Your task to perform on an android device: set an alarm Image 0: 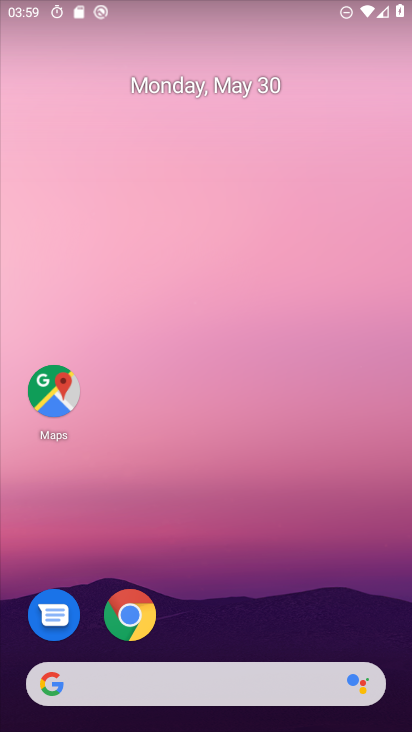
Step 0: drag from (247, 597) to (221, 144)
Your task to perform on an android device: set an alarm Image 1: 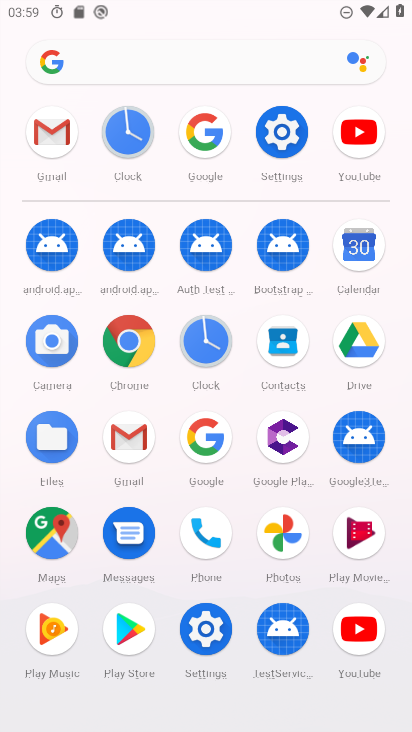
Step 1: click (130, 134)
Your task to perform on an android device: set an alarm Image 2: 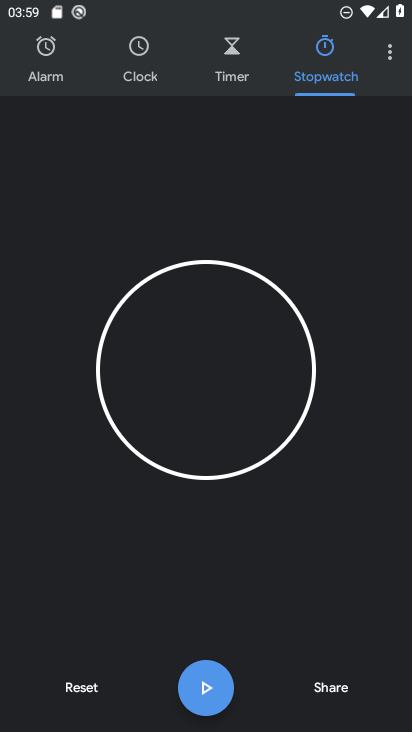
Step 2: click (49, 49)
Your task to perform on an android device: set an alarm Image 3: 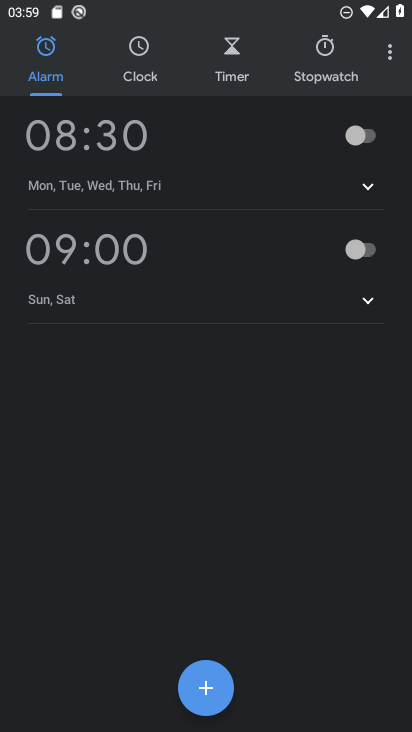
Step 3: click (205, 687)
Your task to perform on an android device: set an alarm Image 4: 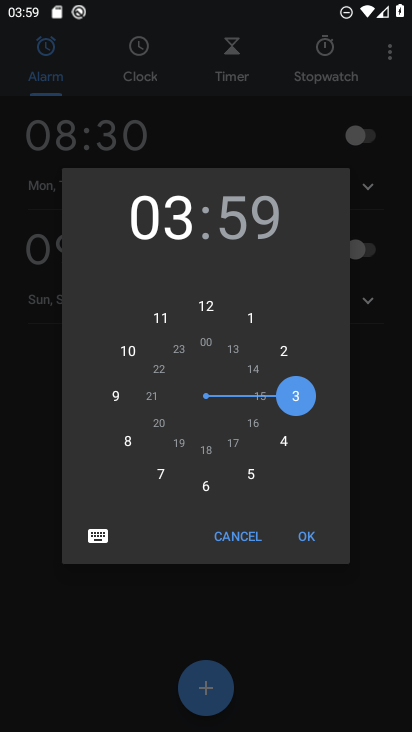
Step 4: click (156, 399)
Your task to perform on an android device: set an alarm Image 5: 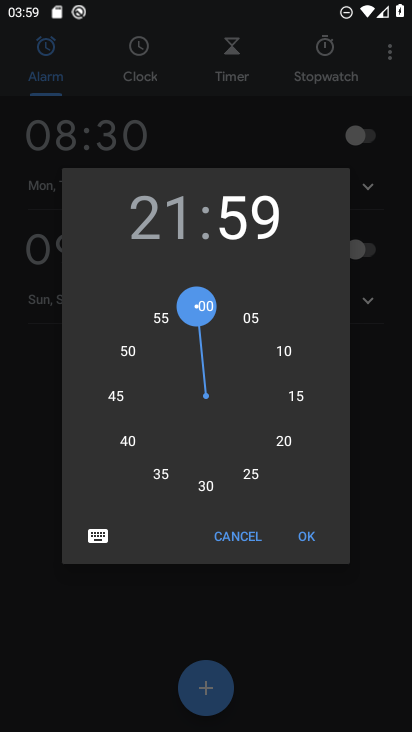
Step 5: click (116, 405)
Your task to perform on an android device: set an alarm Image 6: 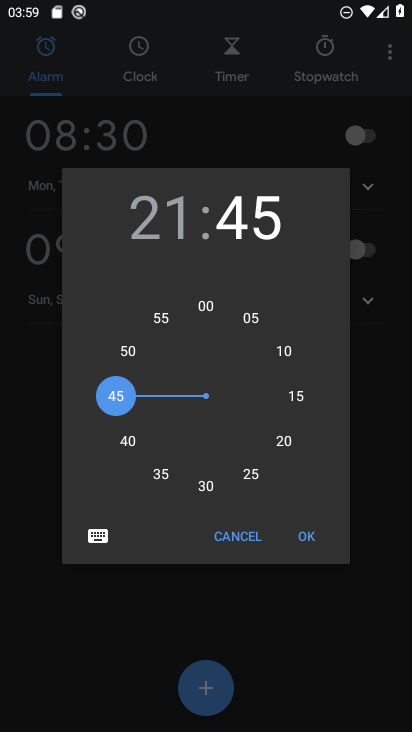
Step 6: click (307, 534)
Your task to perform on an android device: set an alarm Image 7: 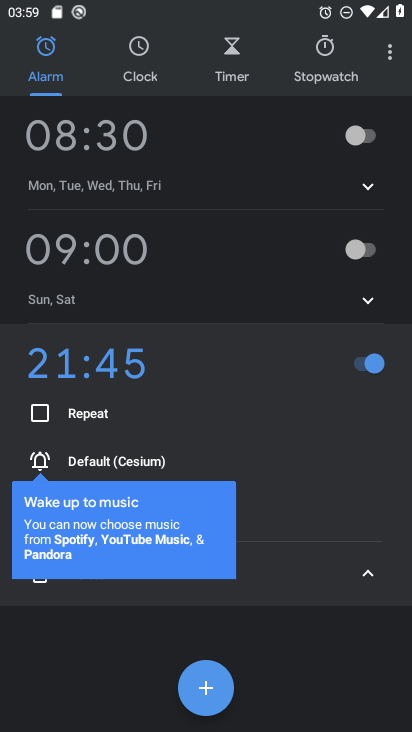
Step 7: click (369, 575)
Your task to perform on an android device: set an alarm Image 8: 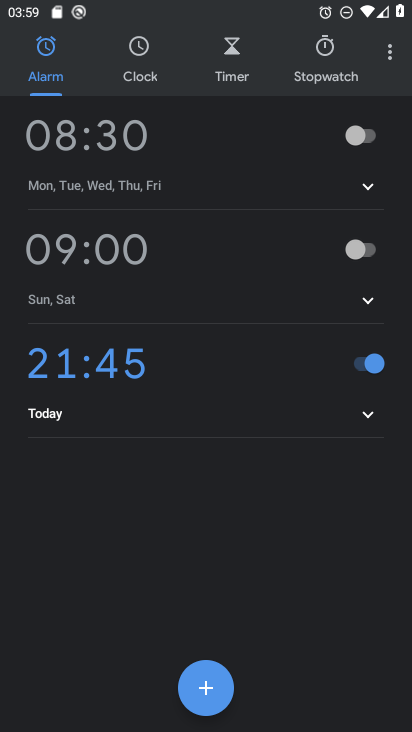
Step 8: task complete